Your task to perform on an android device: Open settings Image 0: 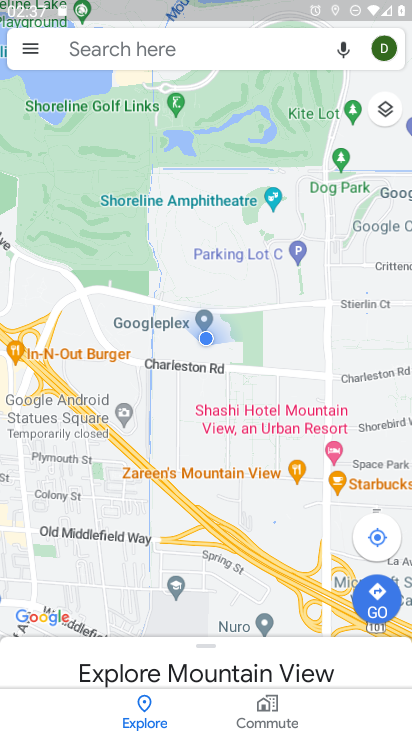
Step 0: press home button
Your task to perform on an android device: Open settings Image 1: 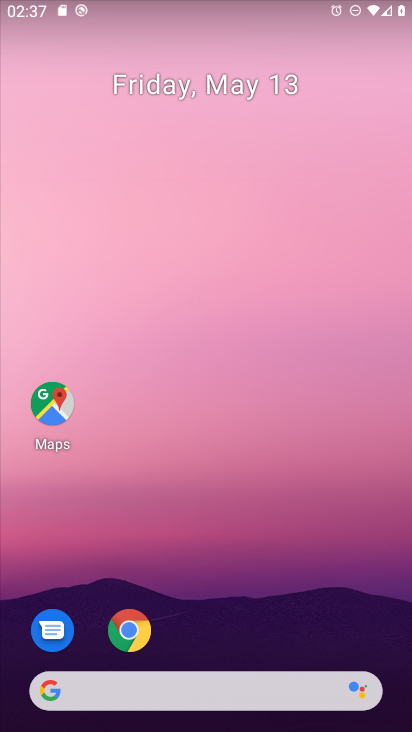
Step 1: drag from (276, 696) to (267, 304)
Your task to perform on an android device: Open settings Image 2: 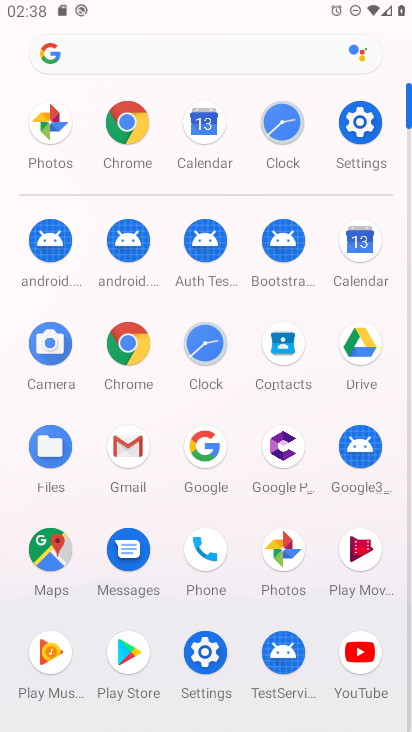
Step 2: click (343, 124)
Your task to perform on an android device: Open settings Image 3: 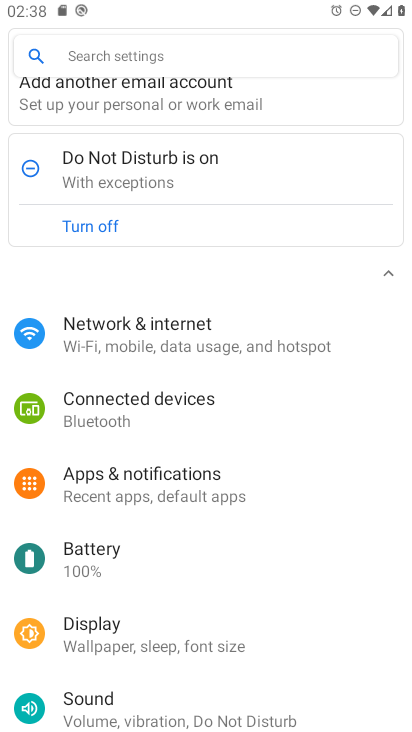
Step 3: task complete